Your task to perform on an android device: Open internet settings Image 0: 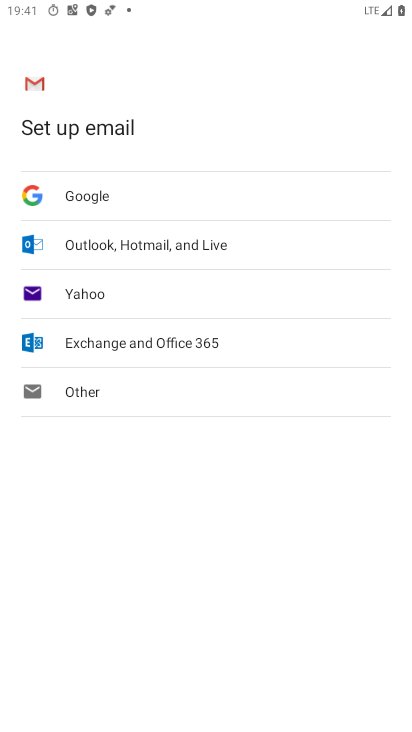
Step 0: press home button
Your task to perform on an android device: Open internet settings Image 1: 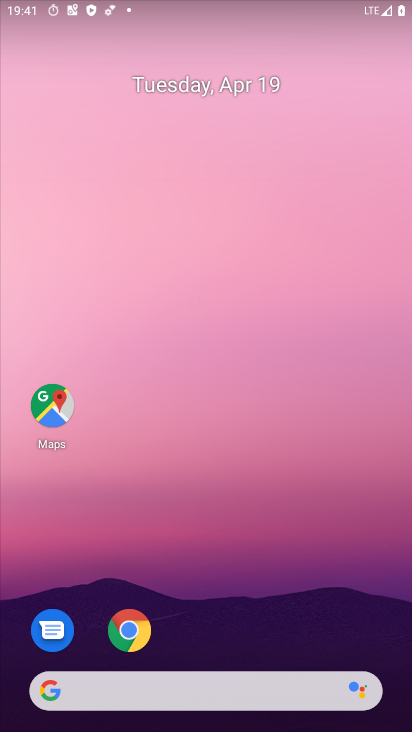
Step 1: drag from (224, 659) to (196, 55)
Your task to perform on an android device: Open internet settings Image 2: 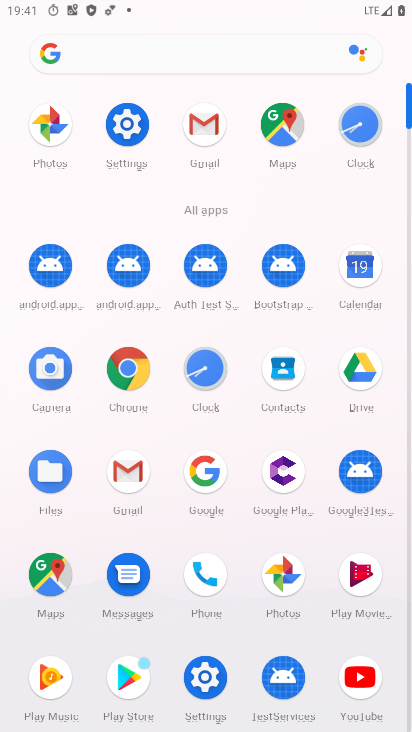
Step 2: click (202, 684)
Your task to perform on an android device: Open internet settings Image 3: 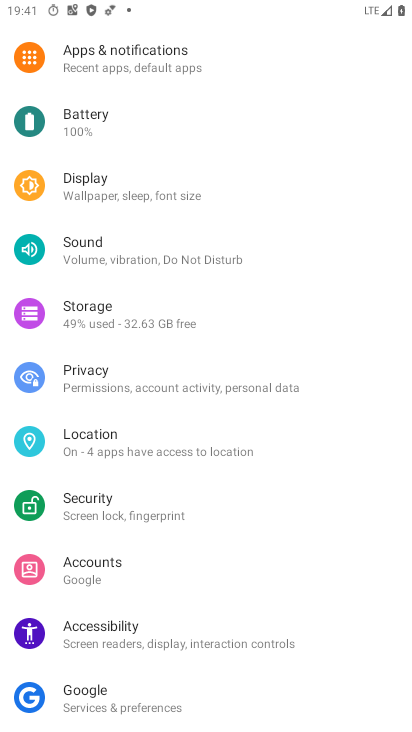
Step 3: drag from (142, 170) to (100, 495)
Your task to perform on an android device: Open internet settings Image 4: 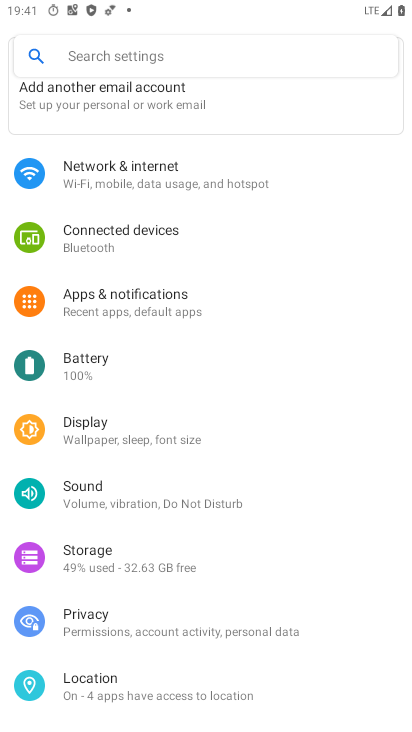
Step 4: click (109, 174)
Your task to perform on an android device: Open internet settings Image 5: 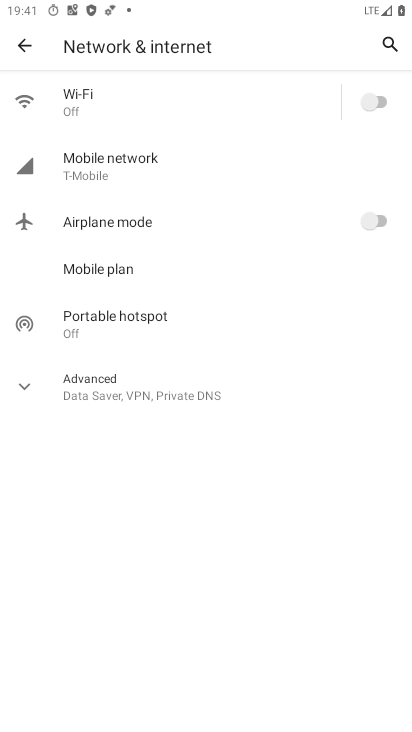
Step 5: click (124, 175)
Your task to perform on an android device: Open internet settings Image 6: 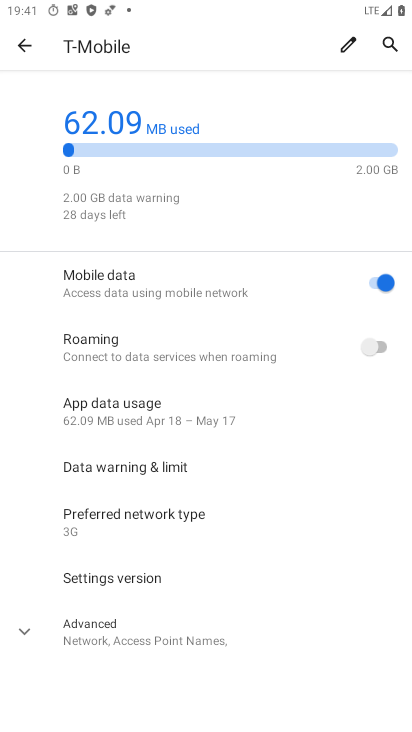
Step 6: drag from (174, 515) to (131, 184)
Your task to perform on an android device: Open internet settings Image 7: 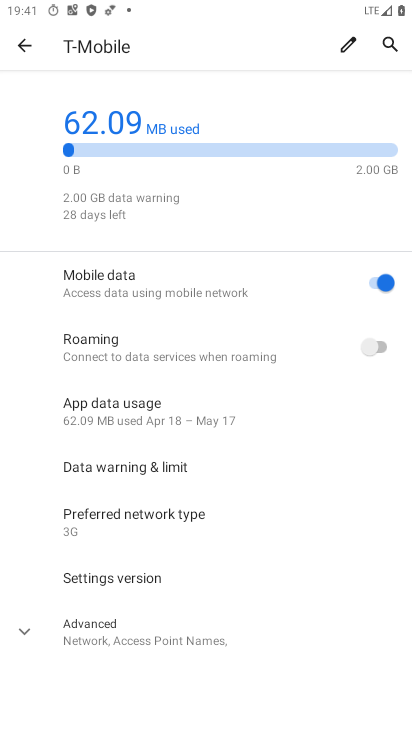
Step 7: click (32, 40)
Your task to perform on an android device: Open internet settings Image 8: 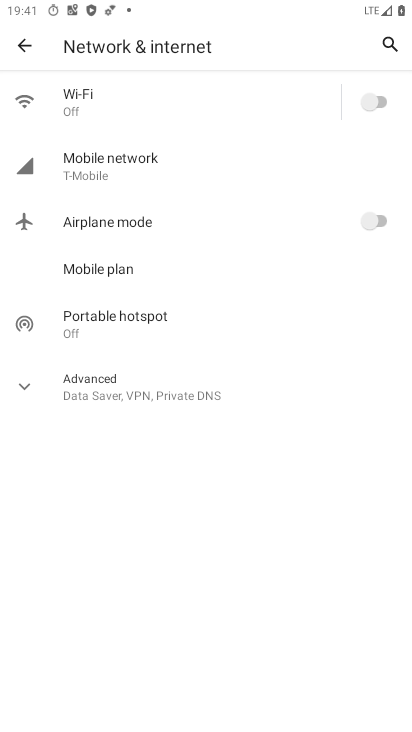
Step 8: drag from (123, 586) to (111, 384)
Your task to perform on an android device: Open internet settings Image 9: 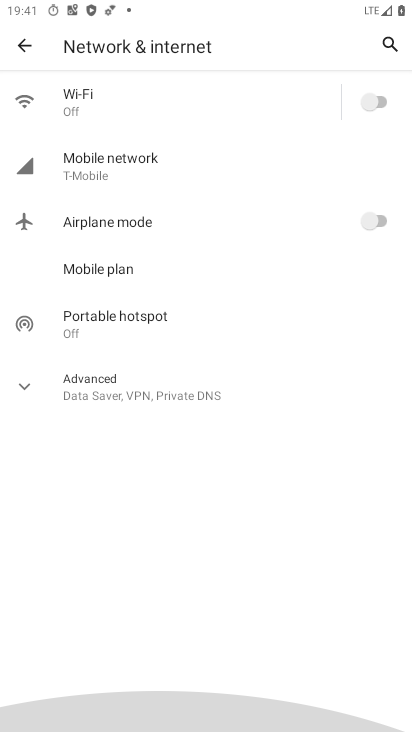
Step 9: click (111, 384)
Your task to perform on an android device: Open internet settings Image 10: 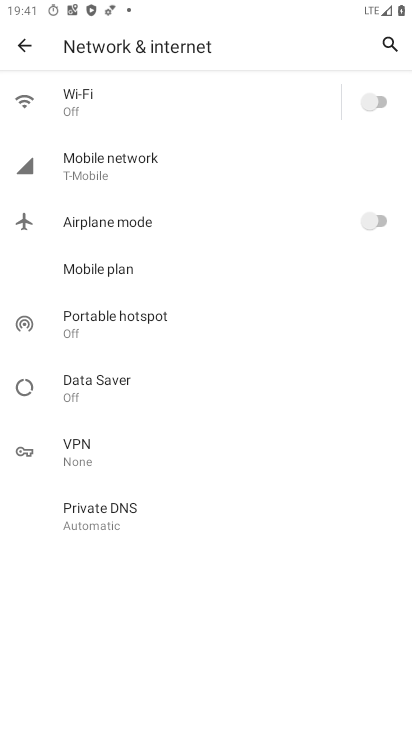
Step 10: task complete